Your task to perform on an android device: Go to notification settings Image 0: 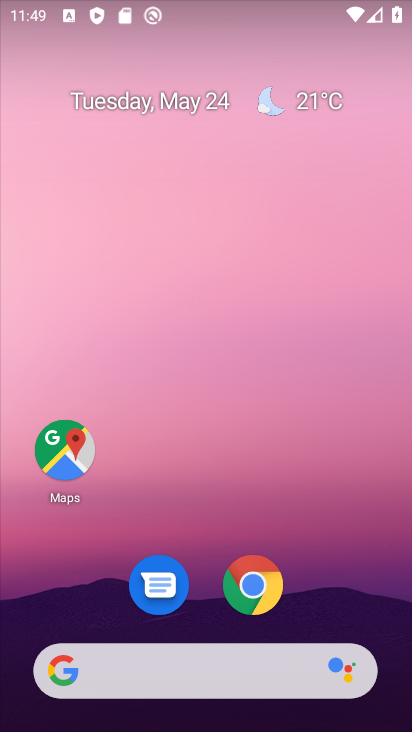
Step 0: drag from (318, 499) to (331, 30)
Your task to perform on an android device: Go to notification settings Image 1: 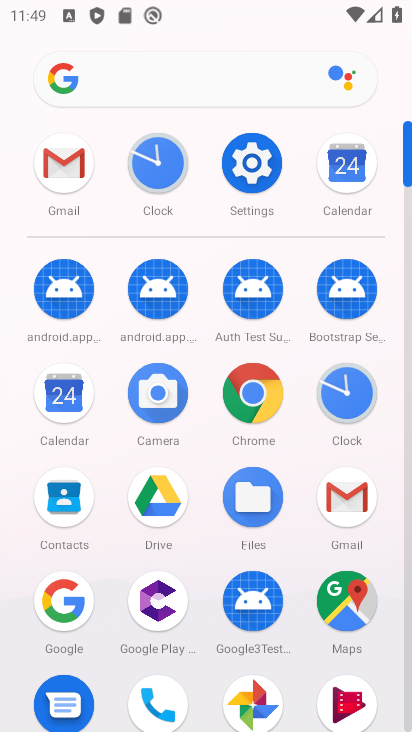
Step 1: click (264, 162)
Your task to perform on an android device: Go to notification settings Image 2: 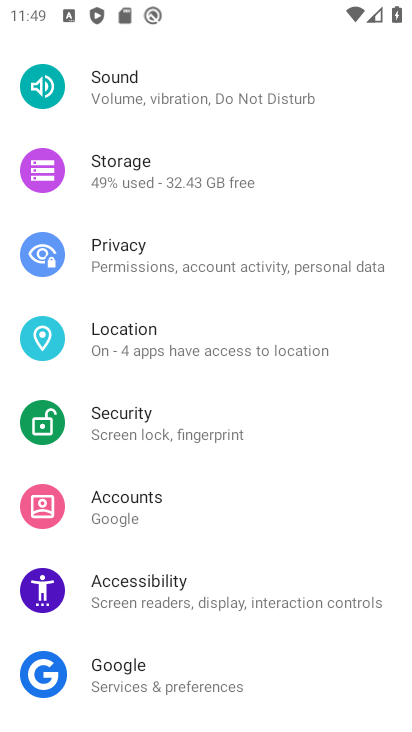
Step 2: drag from (219, 158) to (201, 428)
Your task to perform on an android device: Go to notification settings Image 3: 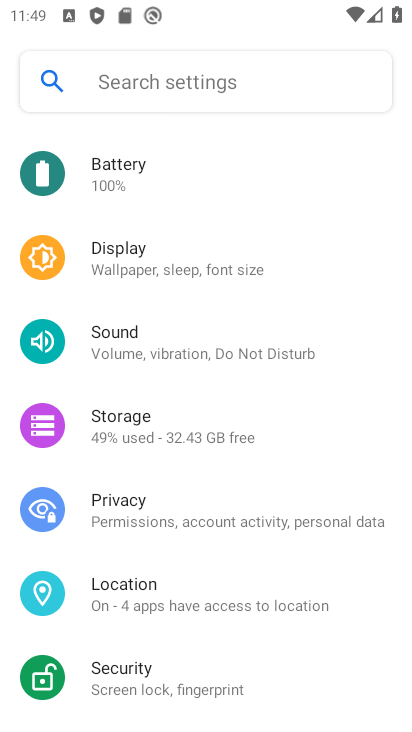
Step 3: drag from (230, 328) to (226, 567)
Your task to perform on an android device: Go to notification settings Image 4: 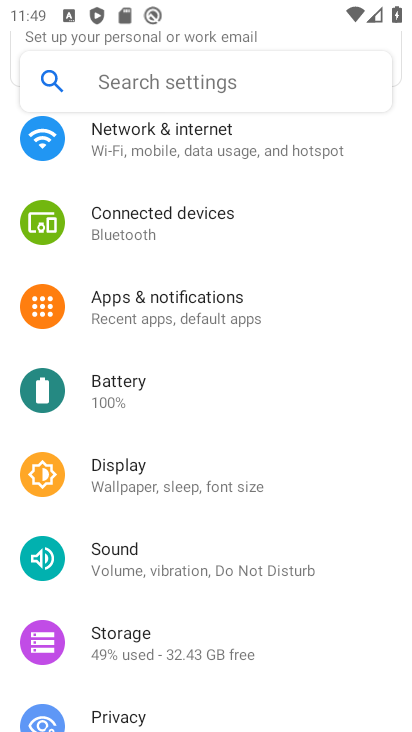
Step 4: click (230, 316)
Your task to perform on an android device: Go to notification settings Image 5: 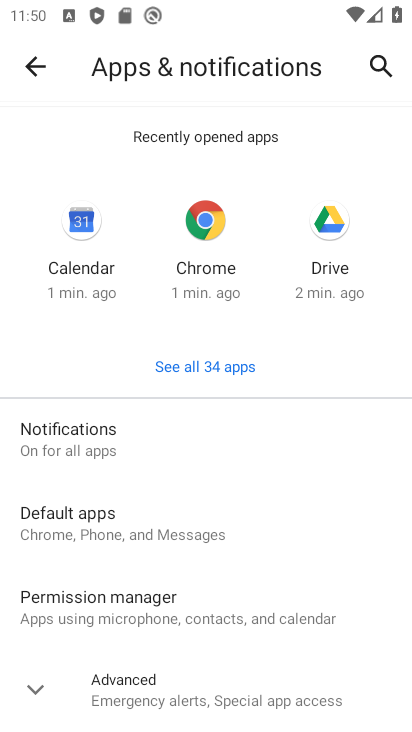
Step 5: click (194, 440)
Your task to perform on an android device: Go to notification settings Image 6: 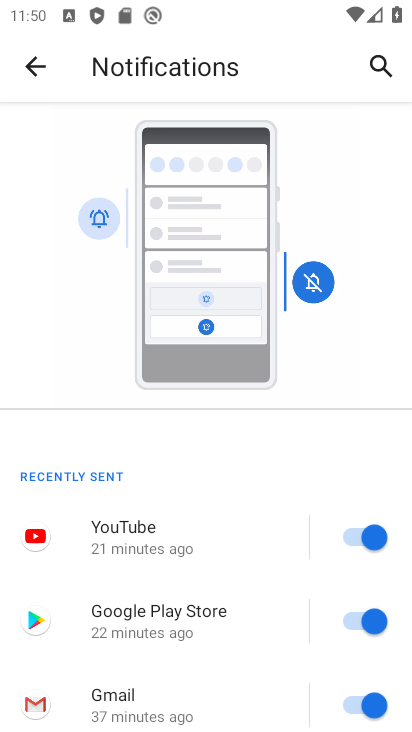
Step 6: task complete